Your task to perform on an android device: add a contact in the contacts app Image 0: 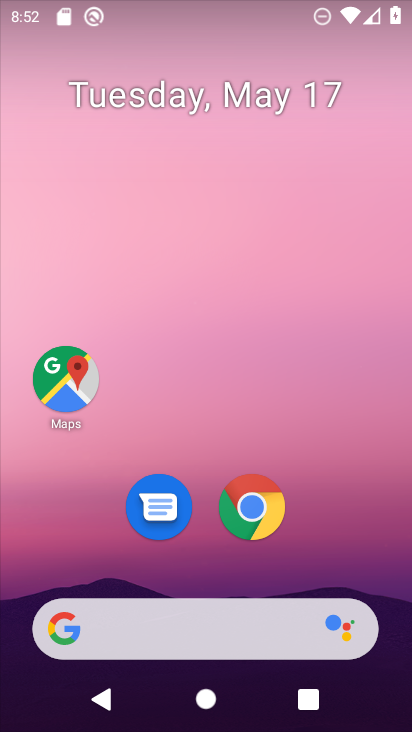
Step 0: drag from (352, 578) to (324, 24)
Your task to perform on an android device: add a contact in the contacts app Image 1: 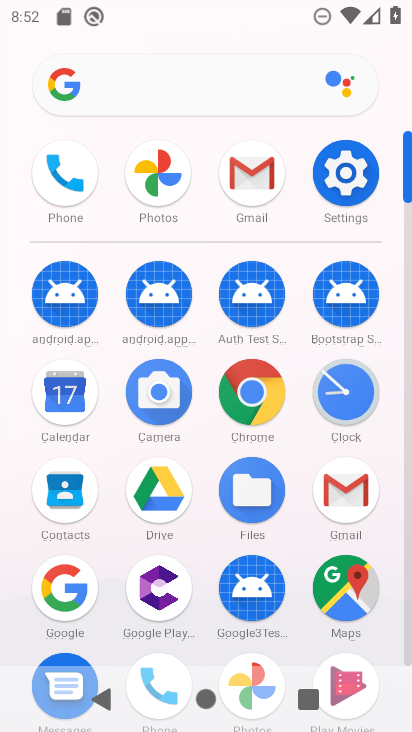
Step 1: click (69, 494)
Your task to perform on an android device: add a contact in the contacts app Image 2: 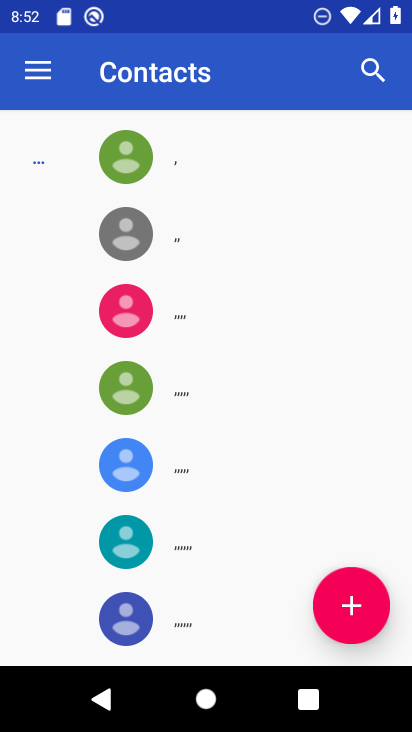
Step 2: click (374, 599)
Your task to perform on an android device: add a contact in the contacts app Image 3: 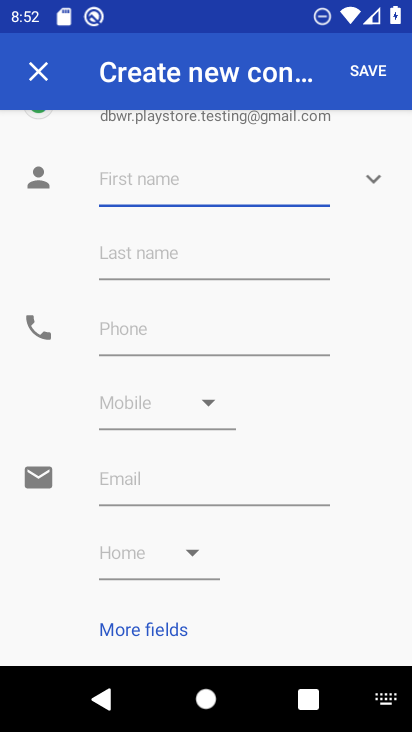
Step 3: type "aana"
Your task to perform on an android device: add a contact in the contacts app Image 4: 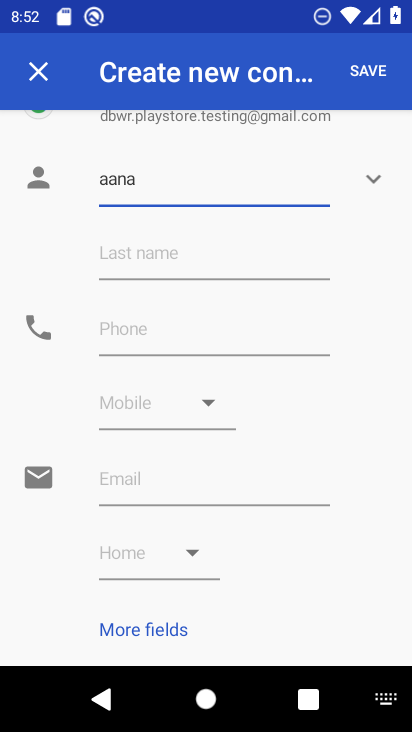
Step 4: click (128, 335)
Your task to perform on an android device: add a contact in the contacts app Image 5: 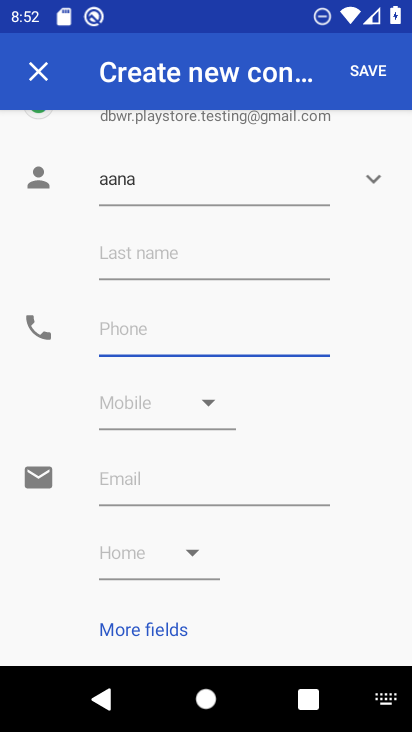
Step 5: type "876544333"
Your task to perform on an android device: add a contact in the contacts app Image 6: 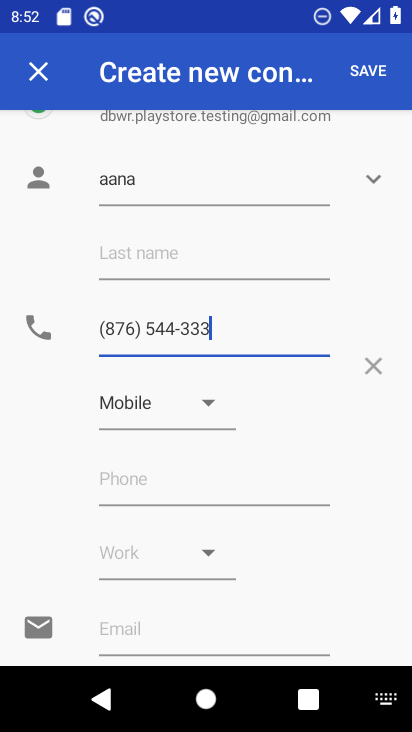
Step 6: click (374, 76)
Your task to perform on an android device: add a contact in the contacts app Image 7: 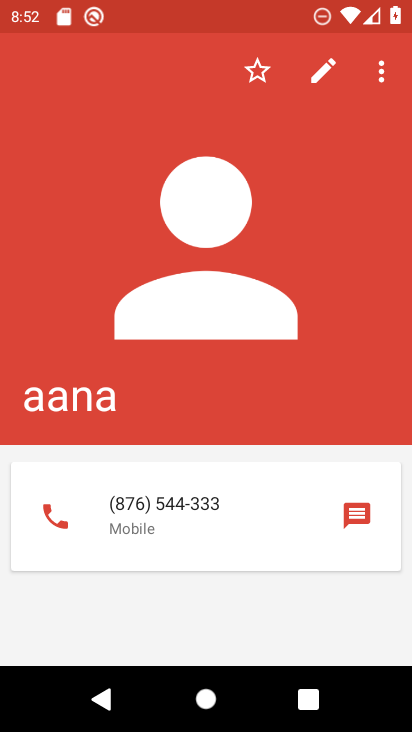
Step 7: task complete